Your task to perform on an android device: refresh tabs in the chrome app Image 0: 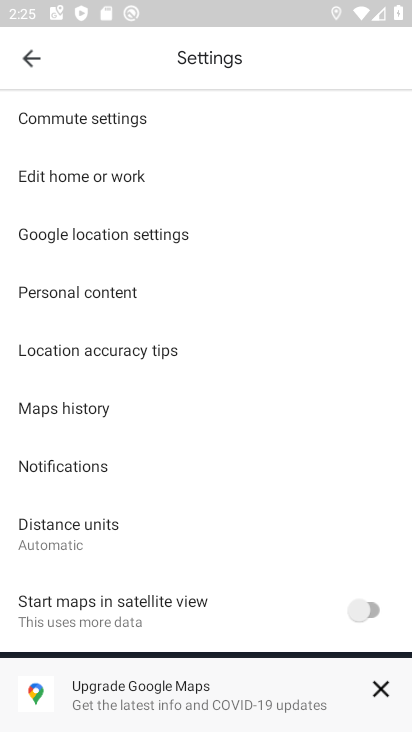
Step 0: click (389, 681)
Your task to perform on an android device: refresh tabs in the chrome app Image 1: 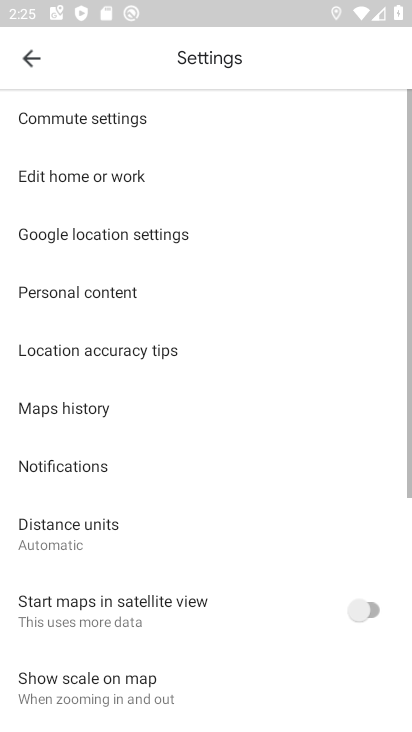
Step 1: press home button
Your task to perform on an android device: refresh tabs in the chrome app Image 2: 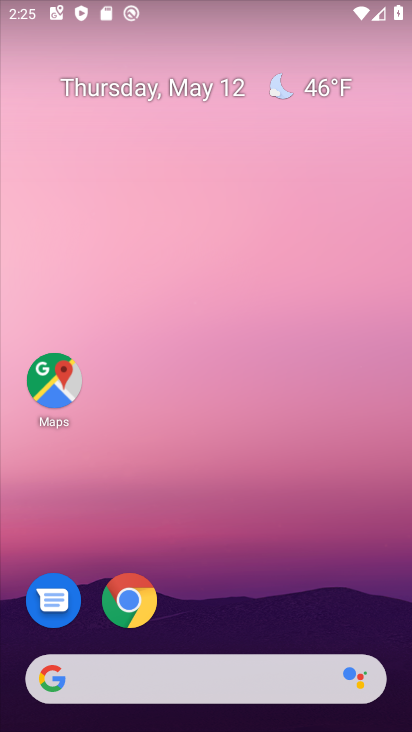
Step 2: click (122, 608)
Your task to perform on an android device: refresh tabs in the chrome app Image 3: 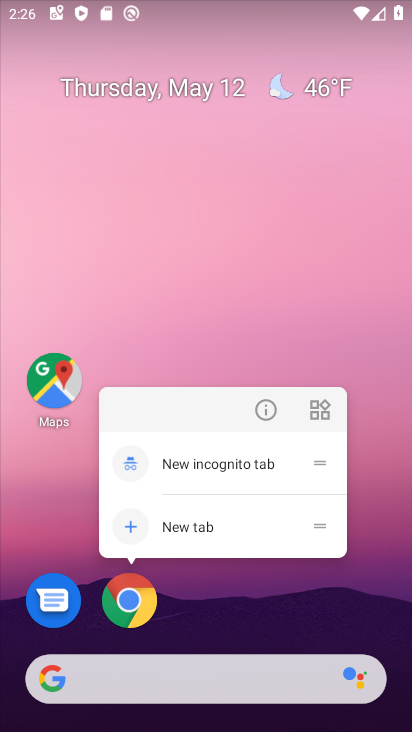
Step 3: click (119, 607)
Your task to perform on an android device: refresh tabs in the chrome app Image 4: 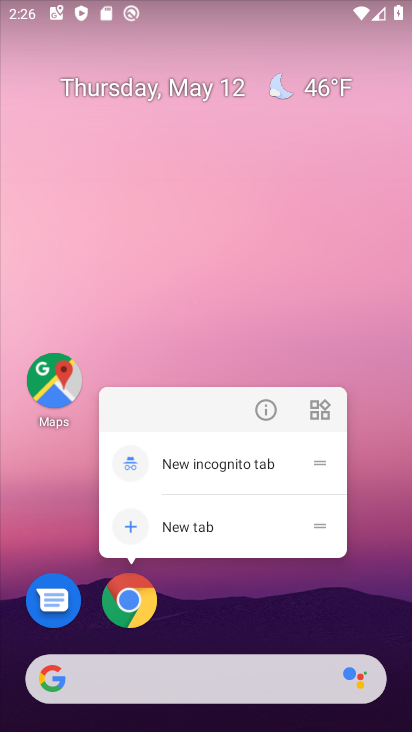
Step 4: click (118, 607)
Your task to perform on an android device: refresh tabs in the chrome app Image 5: 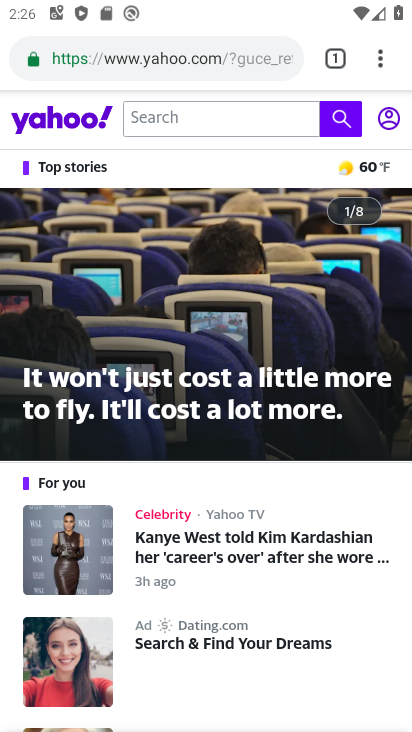
Step 5: click (376, 59)
Your task to perform on an android device: refresh tabs in the chrome app Image 6: 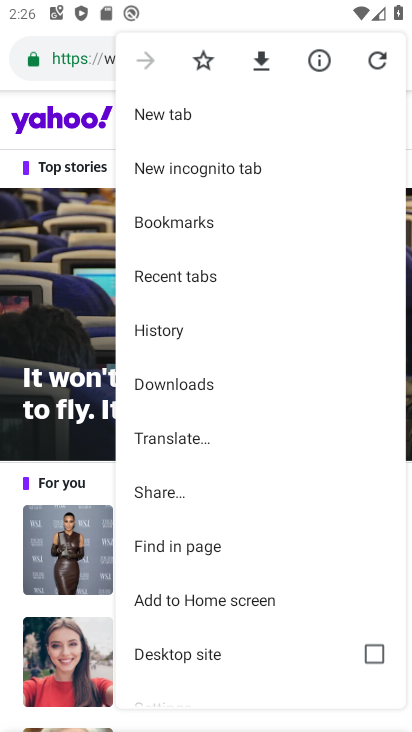
Step 6: click (374, 63)
Your task to perform on an android device: refresh tabs in the chrome app Image 7: 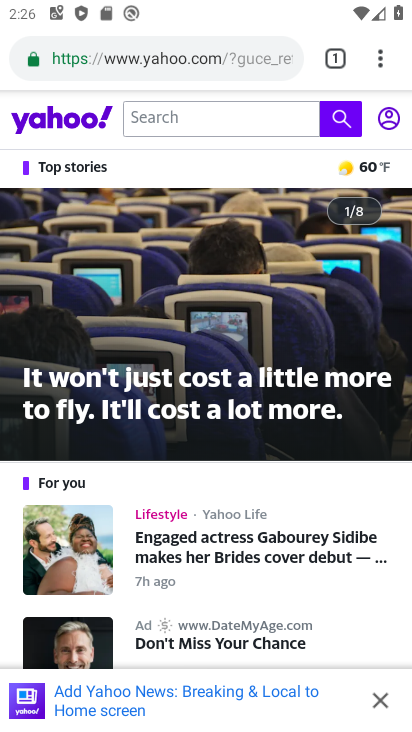
Step 7: task complete